Your task to perform on an android device: Go to privacy settings Image 0: 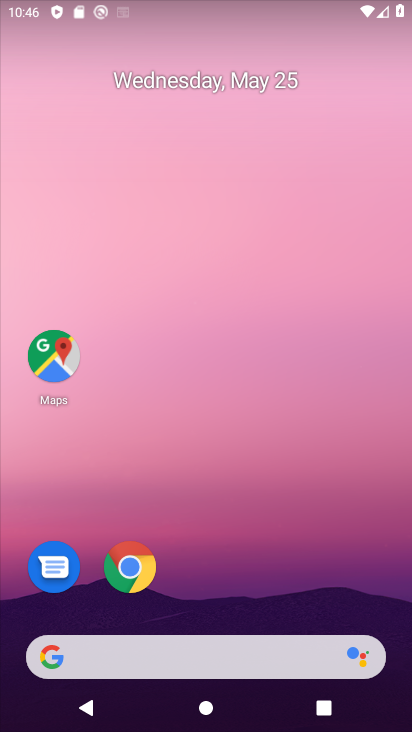
Step 0: drag from (193, 587) to (296, 0)
Your task to perform on an android device: Go to privacy settings Image 1: 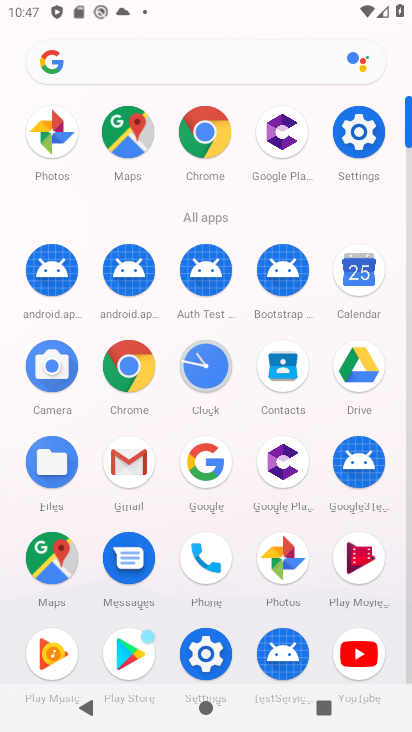
Step 1: click (367, 157)
Your task to perform on an android device: Go to privacy settings Image 2: 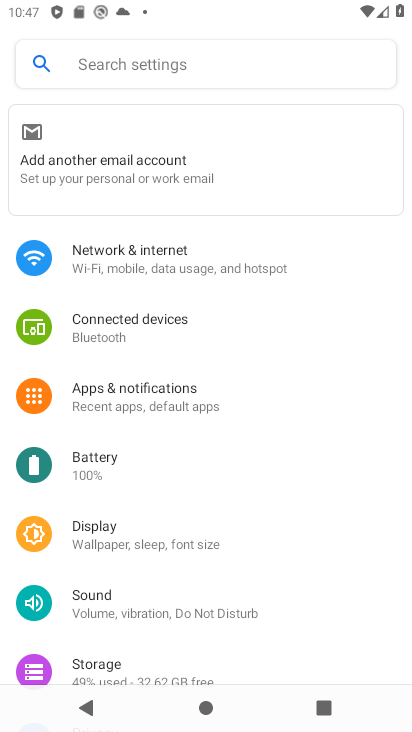
Step 2: drag from (152, 597) to (200, 295)
Your task to perform on an android device: Go to privacy settings Image 3: 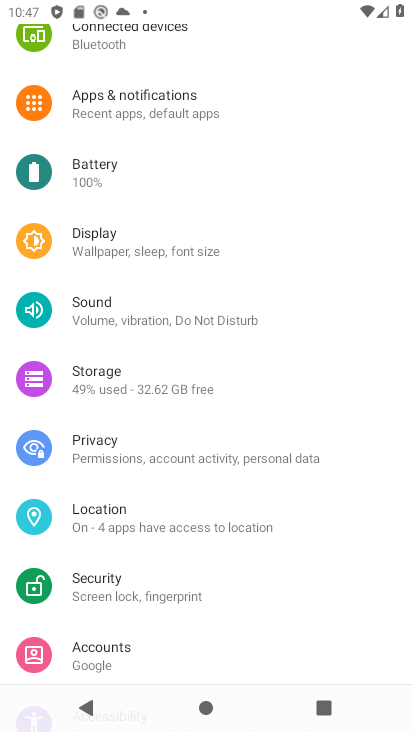
Step 3: click (163, 475)
Your task to perform on an android device: Go to privacy settings Image 4: 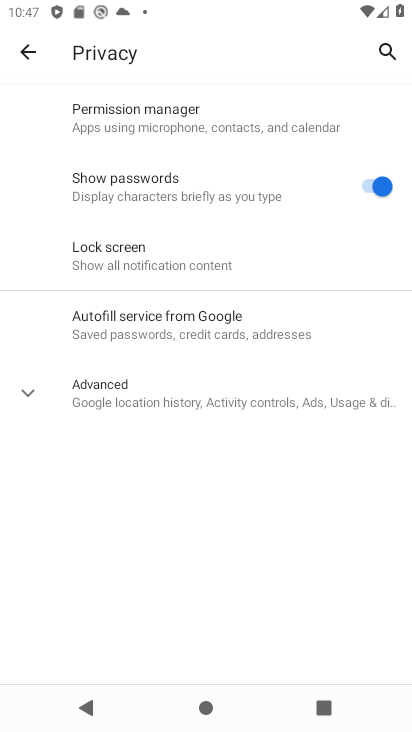
Step 4: task complete